Your task to perform on an android device: Clear the shopping cart on target. Search for dell alienware on target, select the first entry, add it to the cart, then select checkout. Image 0: 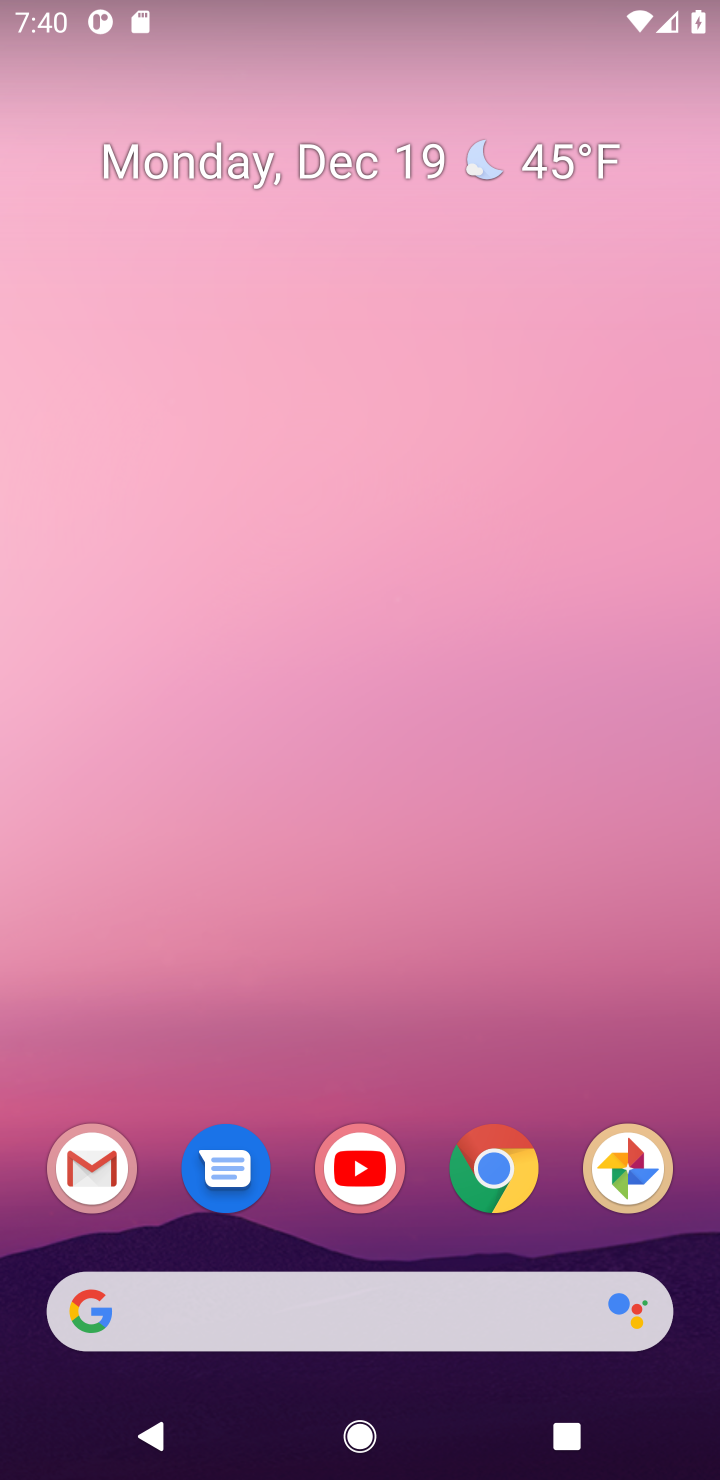
Step 0: click (499, 1198)
Your task to perform on an android device: Clear the shopping cart on target. Search for dell alienware on target, select the first entry, add it to the cart, then select checkout. Image 1: 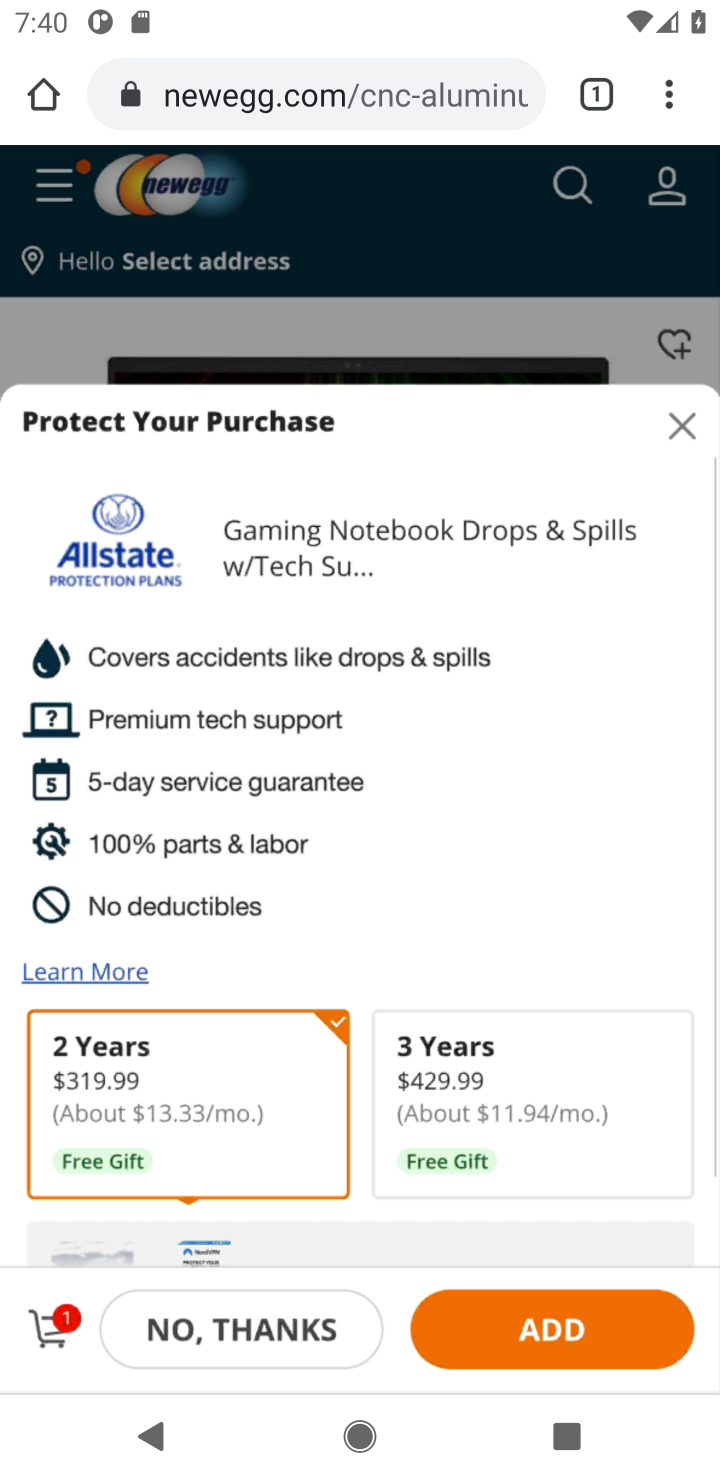
Step 1: click (297, 94)
Your task to perform on an android device: Clear the shopping cart on target. Search for dell alienware on target, select the first entry, add it to the cart, then select checkout. Image 2: 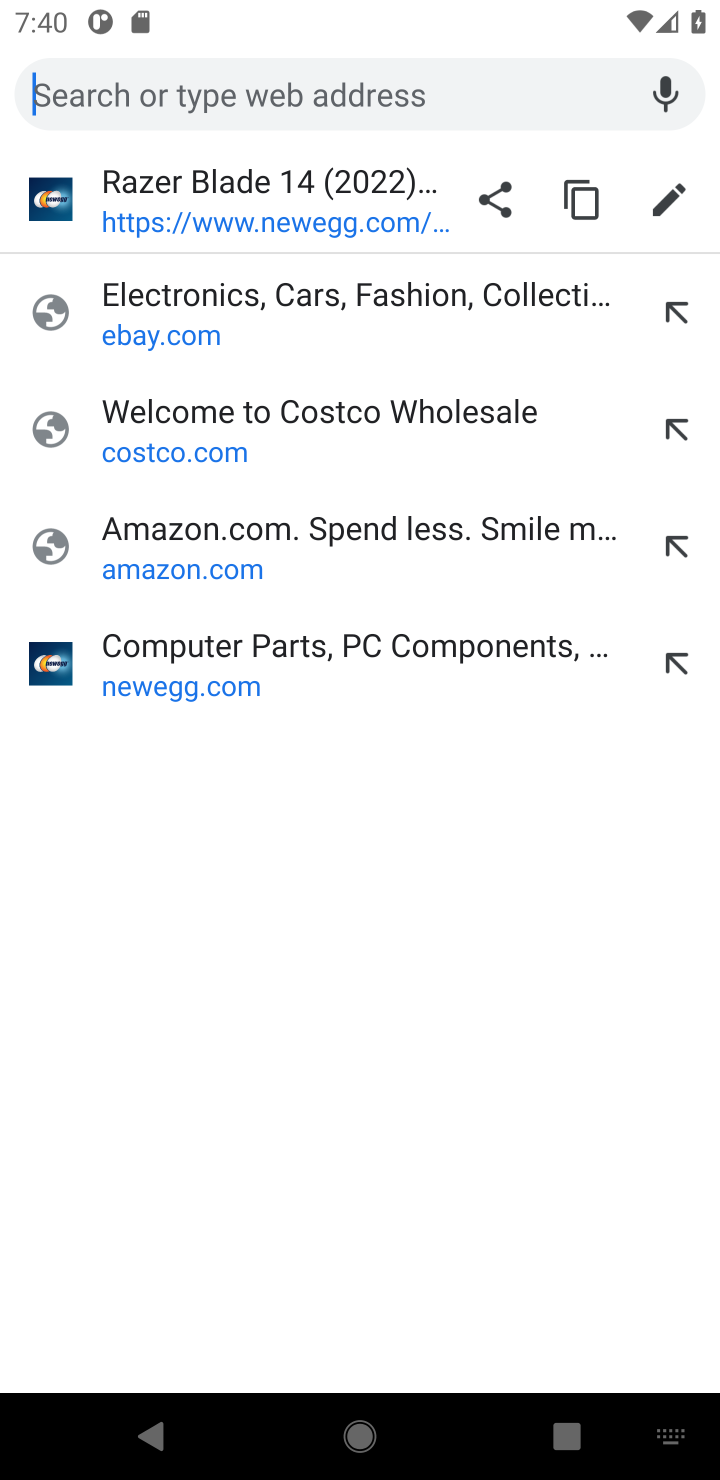
Step 2: type "target.com"
Your task to perform on an android device: Clear the shopping cart on target. Search for dell alienware on target, select the first entry, add it to the cart, then select checkout. Image 3: 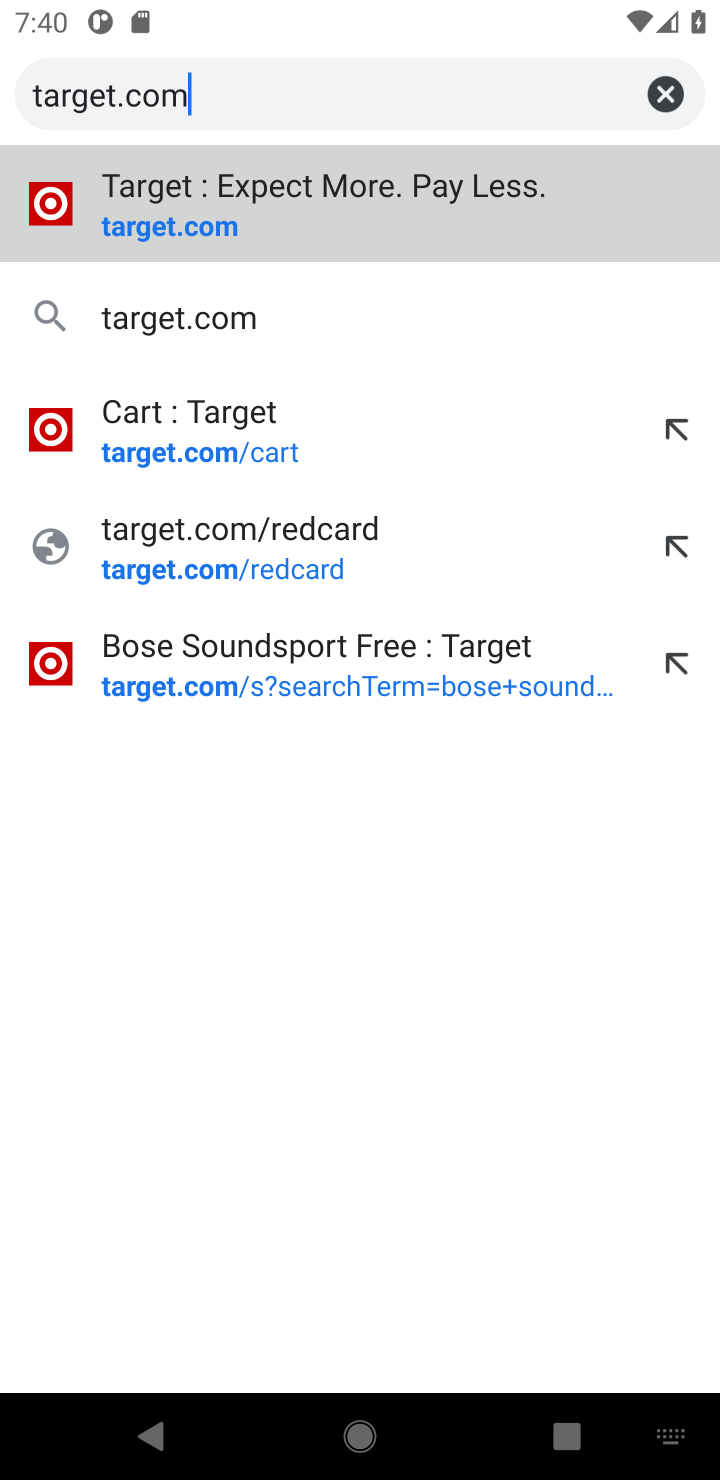
Step 3: click (163, 216)
Your task to perform on an android device: Clear the shopping cart on target. Search for dell alienware on target, select the first entry, add it to the cart, then select checkout. Image 4: 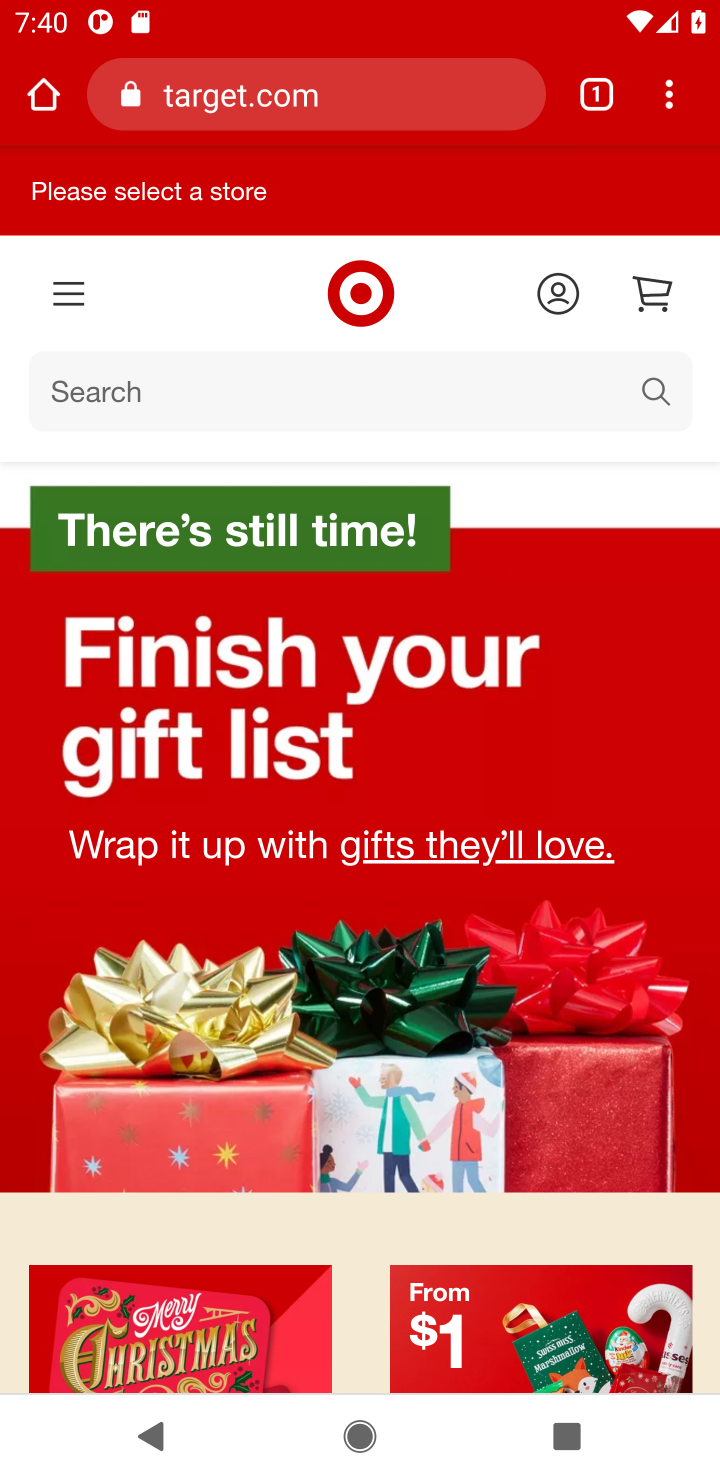
Step 4: click (648, 301)
Your task to perform on an android device: Clear the shopping cart on target. Search for dell alienware on target, select the first entry, add it to the cart, then select checkout. Image 5: 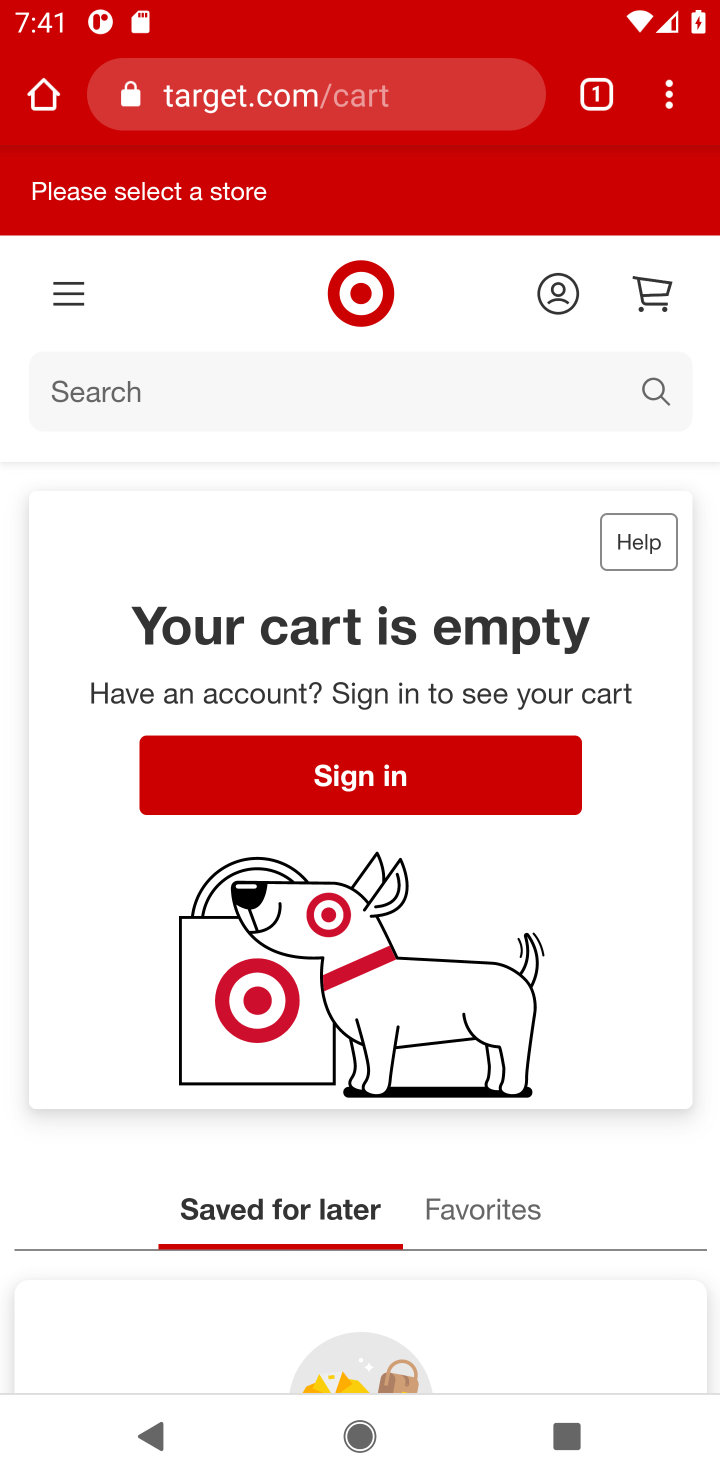
Step 5: click (104, 399)
Your task to perform on an android device: Clear the shopping cart on target. Search for dell alienware on target, select the first entry, add it to the cart, then select checkout. Image 6: 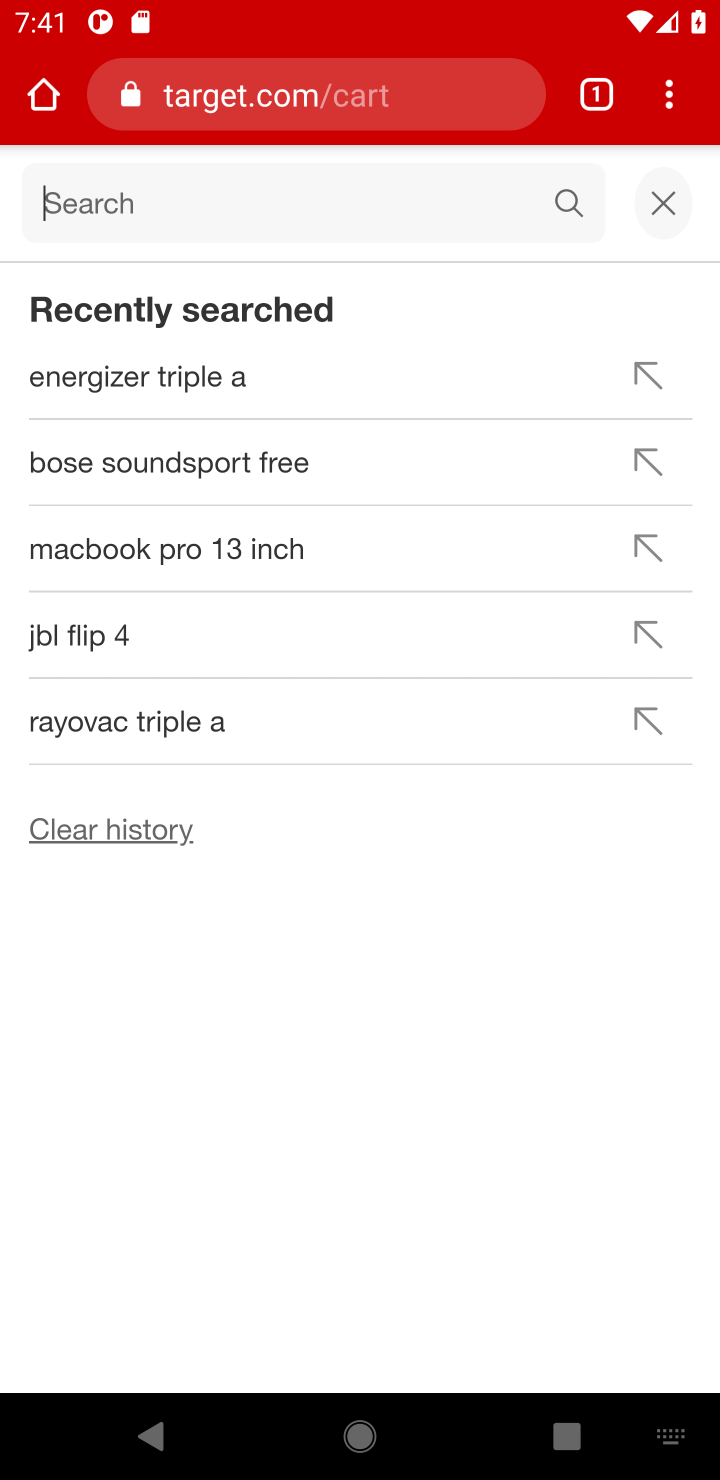
Step 6: type "dell alienware "
Your task to perform on an android device: Clear the shopping cart on target. Search for dell alienware on target, select the first entry, add it to the cart, then select checkout. Image 7: 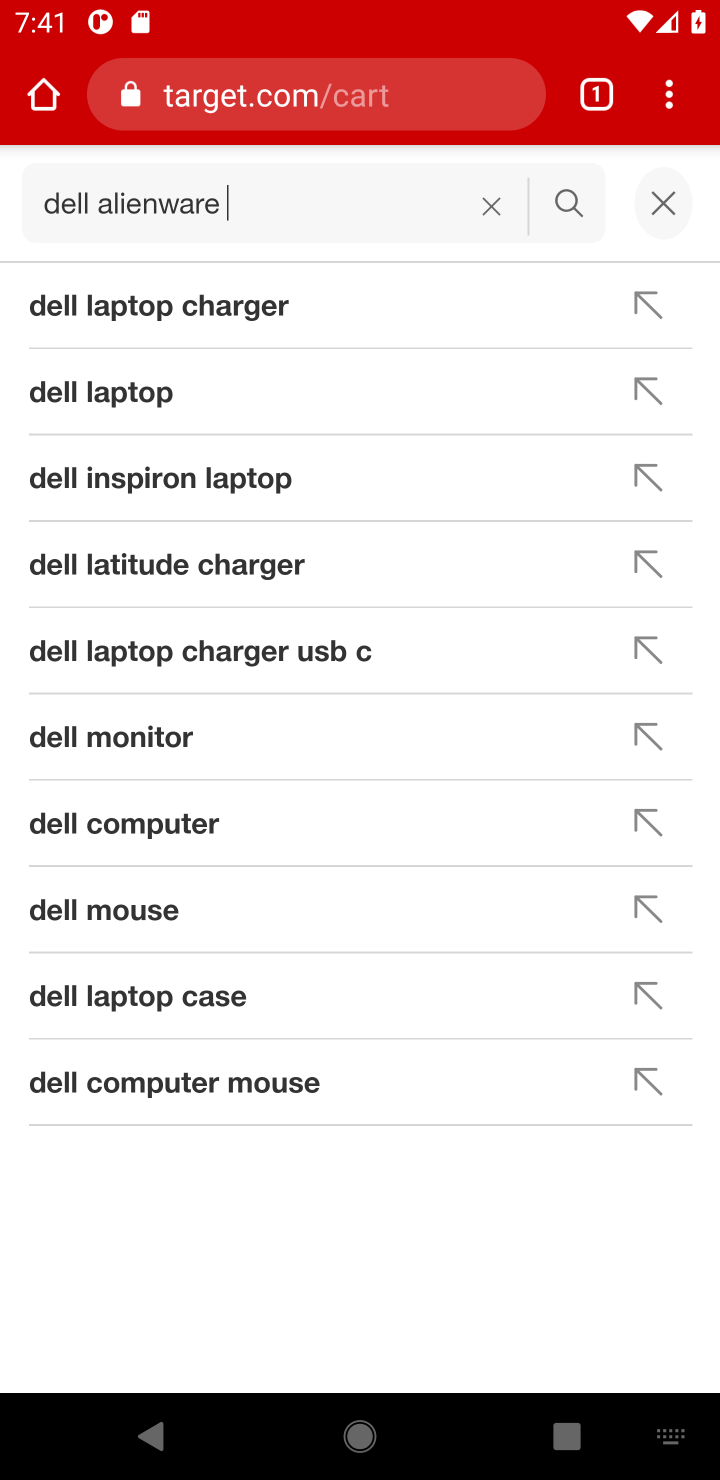
Step 7: click (548, 217)
Your task to perform on an android device: Clear the shopping cart on target. Search for dell alienware on target, select the first entry, add it to the cart, then select checkout. Image 8: 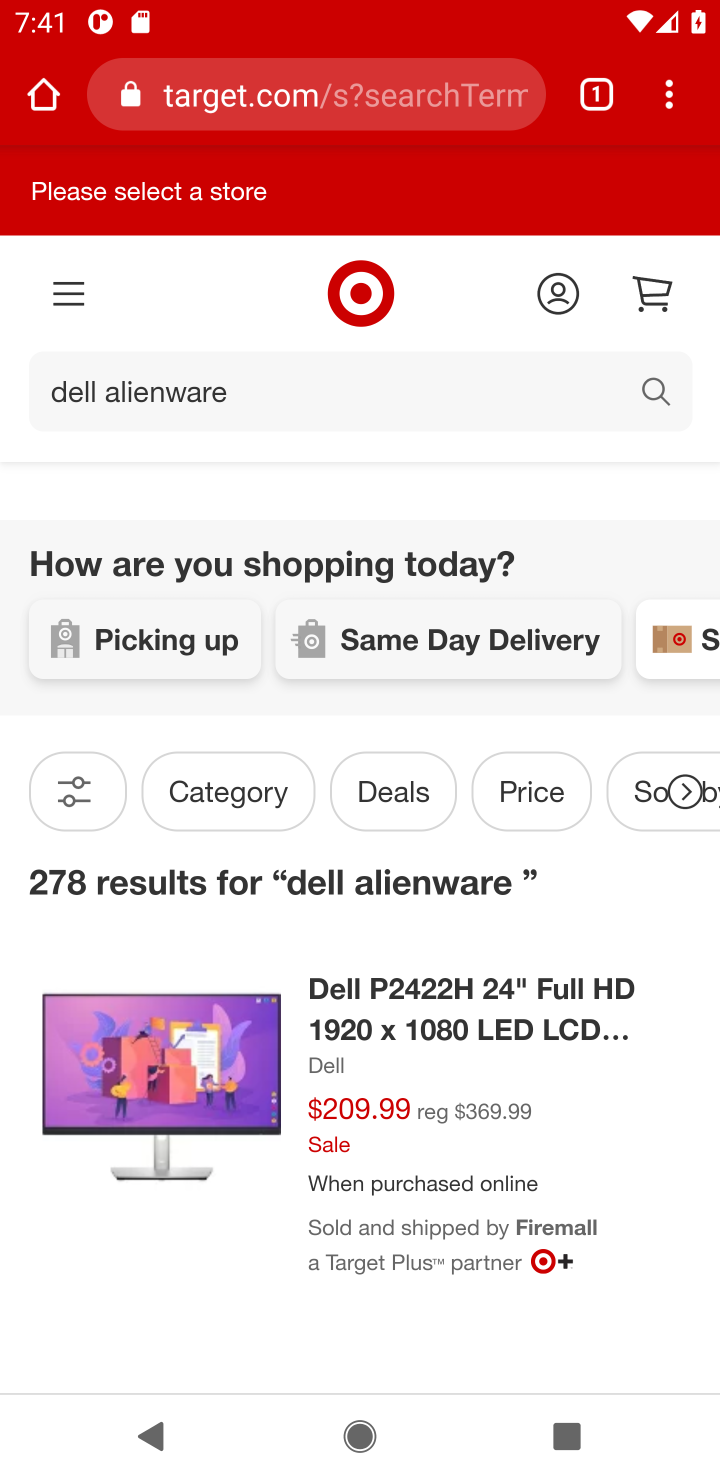
Step 8: task complete